Your task to perform on an android device: install app "Nova Launcher" Image 0: 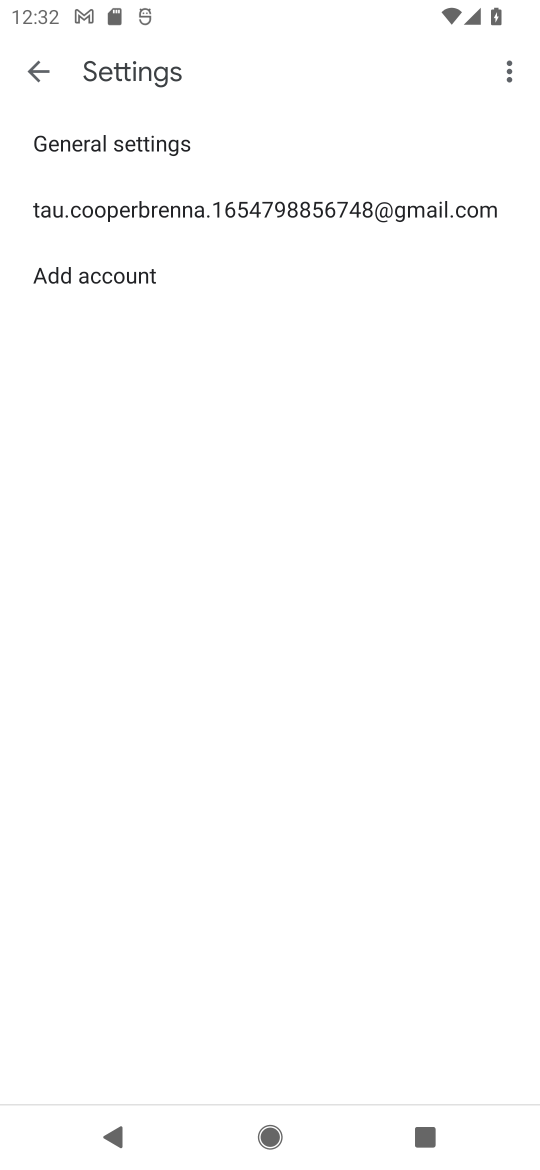
Step 0: press home button
Your task to perform on an android device: install app "Nova Launcher" Image 1: 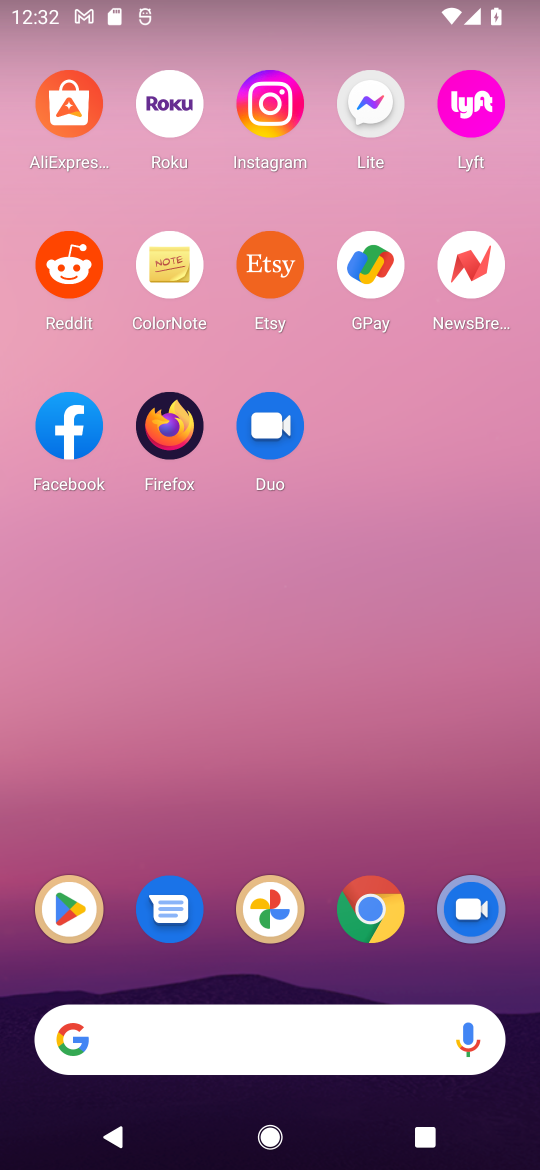
Step 1: click (64, 913)
Your task to perform on an android device: install app "Nova Launcher" Image 2: 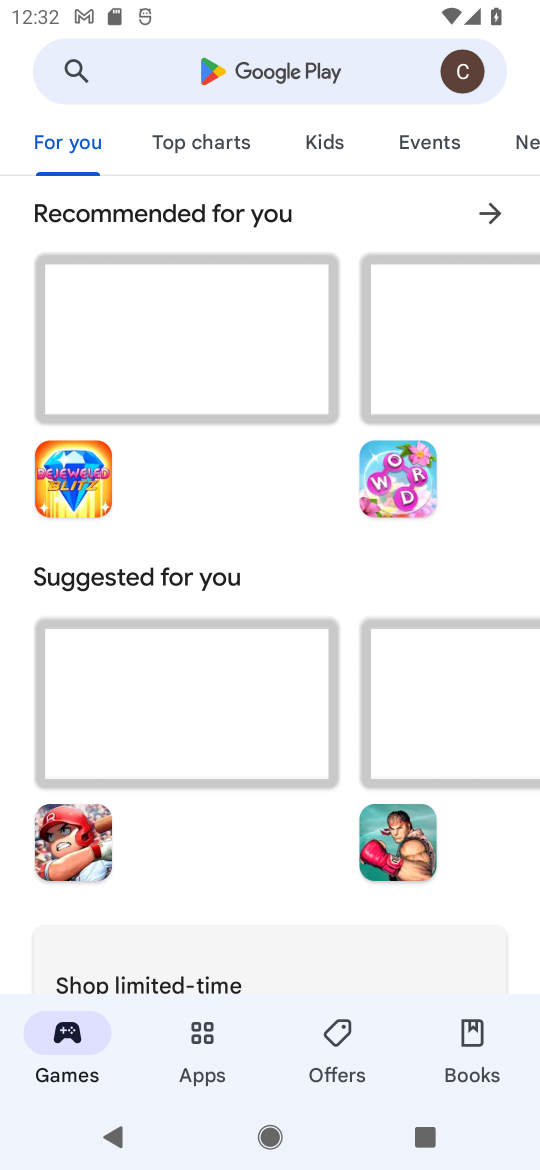
Step 2: click (78, 71)
Your task to perform on an android device: install app "Nova Launcher" Image 3: 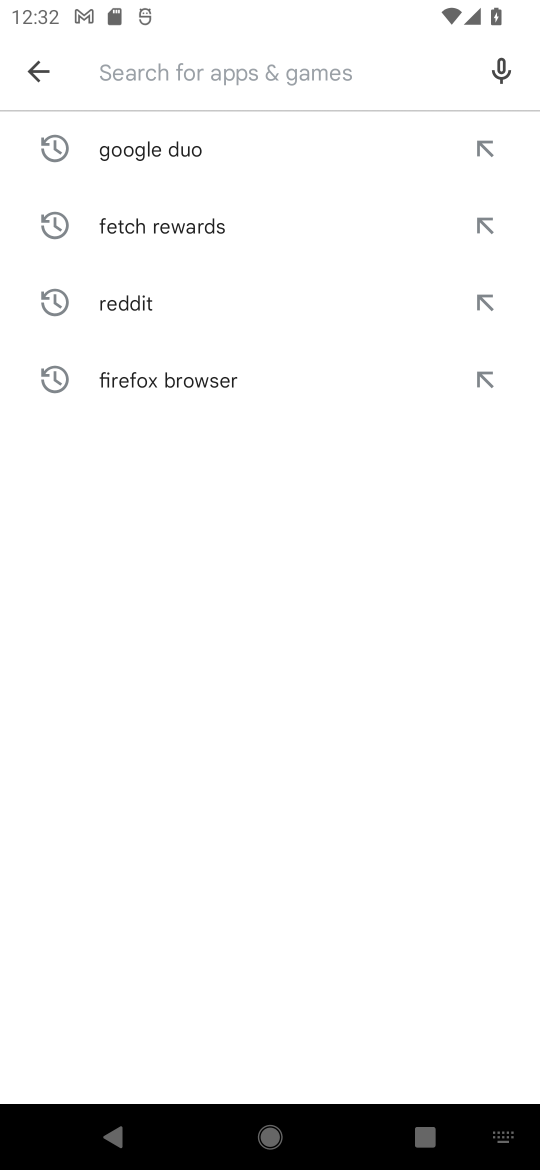
Step 3: type "Nova Launcher""
Your task to perform on an android device: install app "Nova Launcher" Image 4: 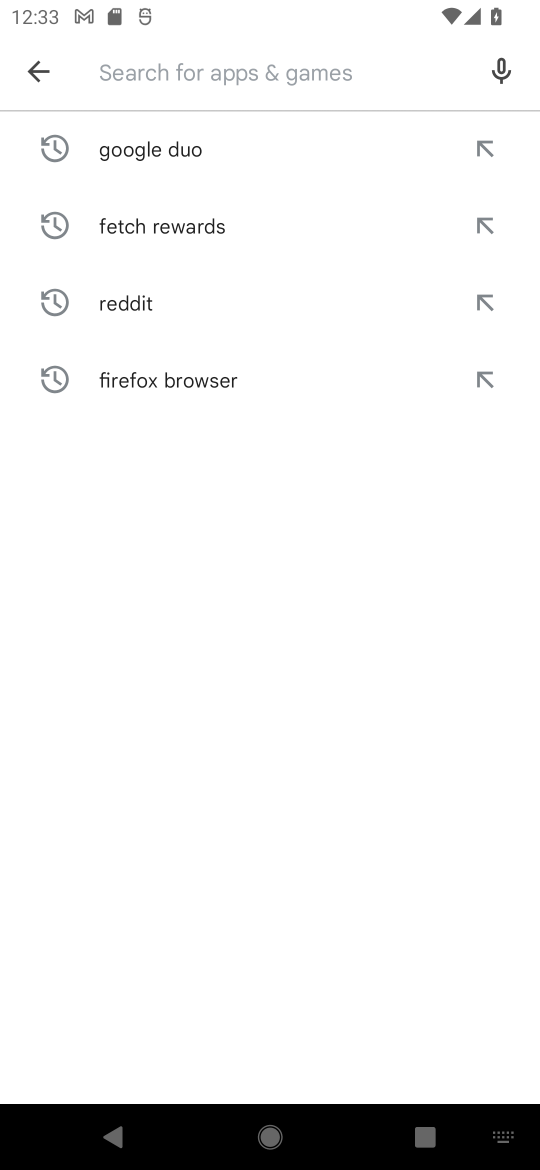
Step 4: type "Nova Launchar"
Your task to perform on an android device: install app "Nova Launcher" Image 5: 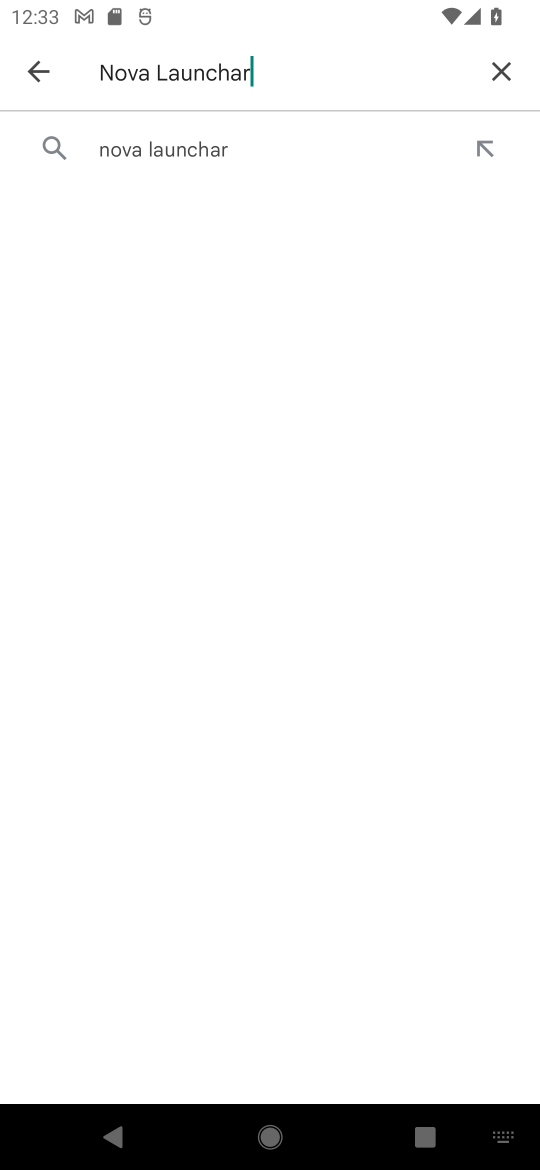
Step 5: click (214, 139)
Your task to perform on an android device: install app "Nova Launcher" Image 6: 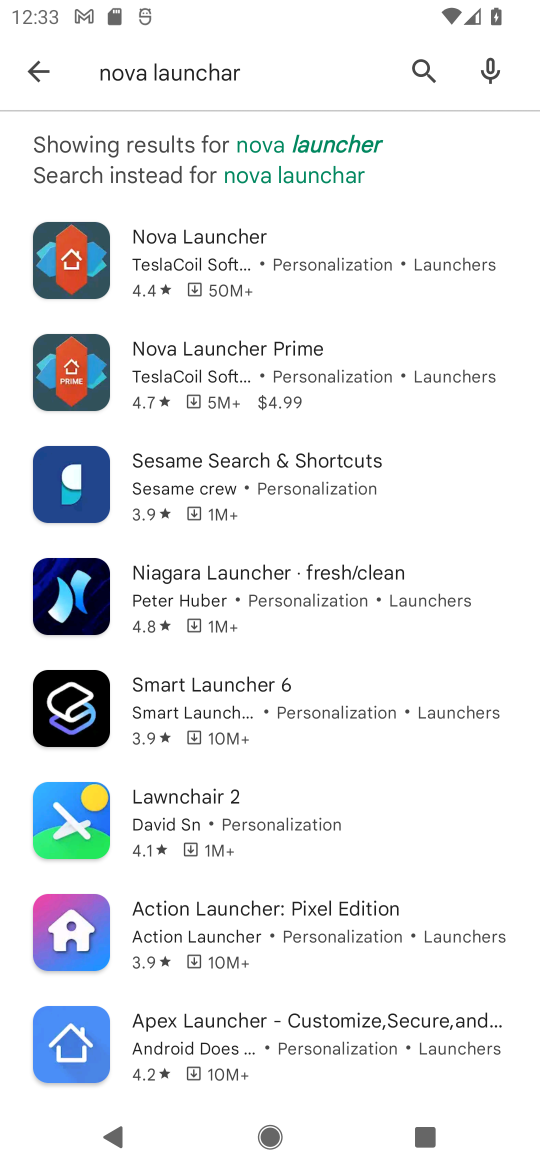
Step 6: click (171, 283)
Your task to perform on an android device: install app "Nova Launcher" Image 7: 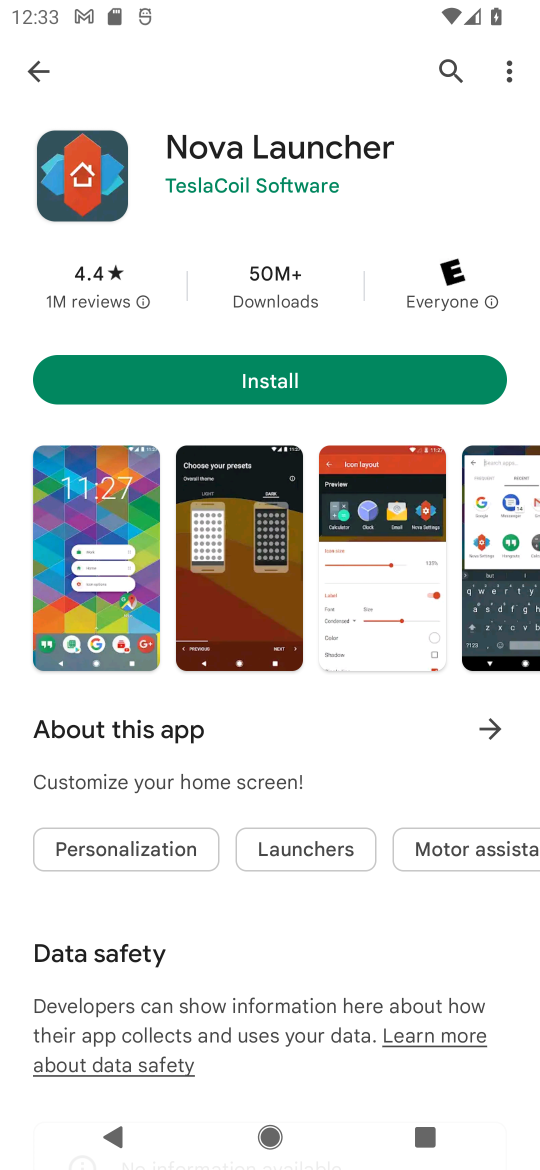
Step 7: click (303, 374)
Your task to perform on an android device: install app "Nova Launcher" Image 8: 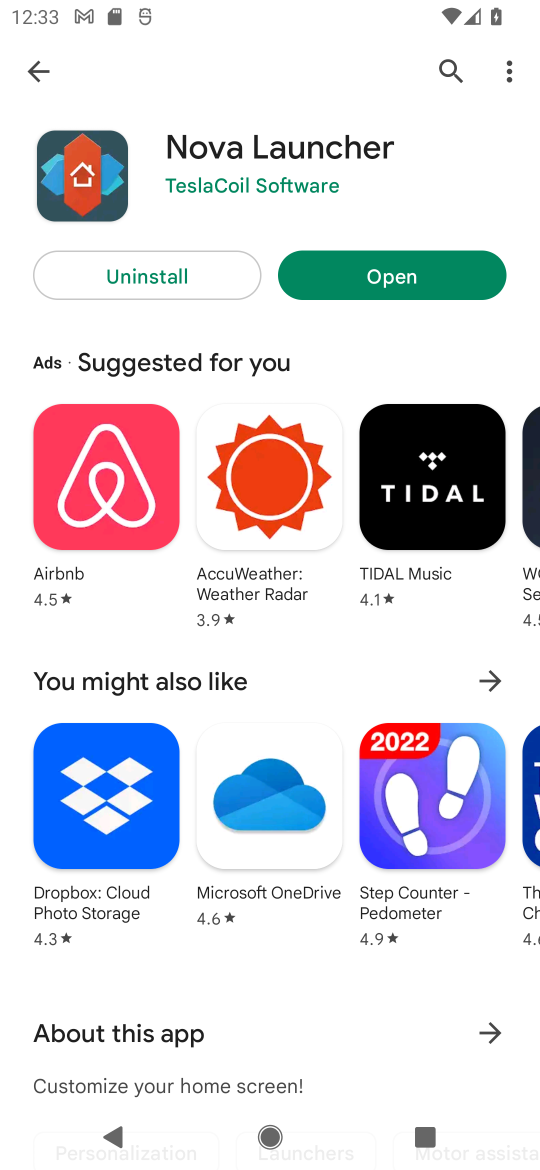
Step 8: task complete